Your task to perform on an android device: change the clock style Image 0: 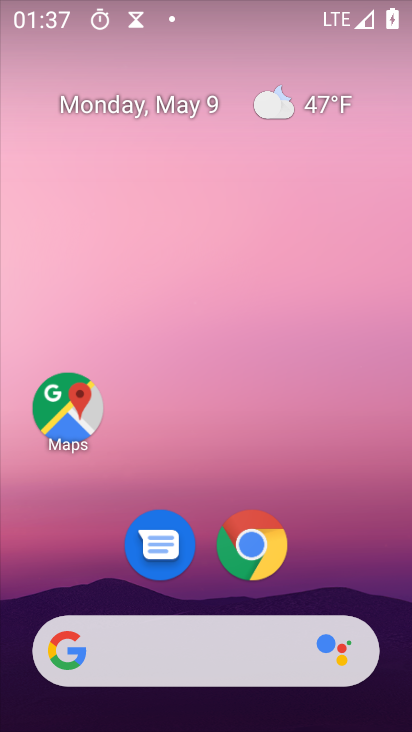
Step 0: drag from (273, 602) to (273, 4)
Your task to perform on an android device: change the clock style Image 1: 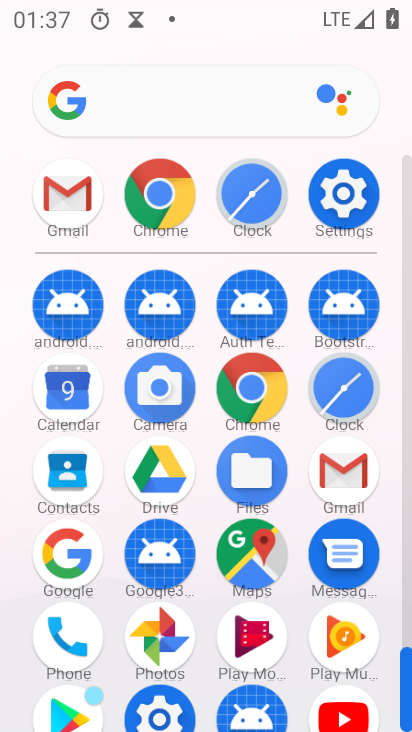
Step 1: click (363, 382)
Your task to perform on an android device: change the clock style Image 2: 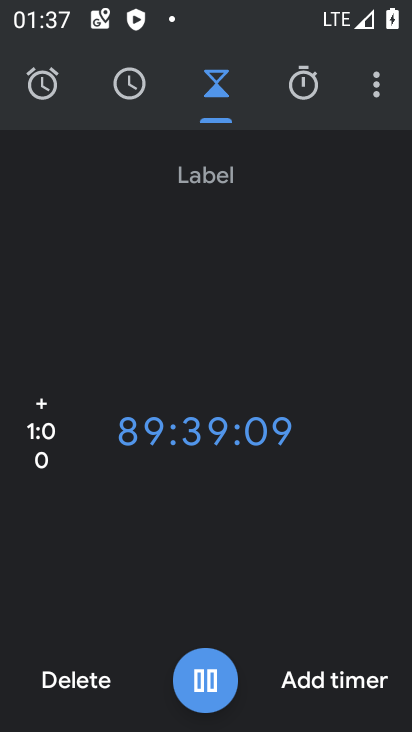
Step 2: click (374, 86)
Your task to perform on an android device: change the clock style Image 3: 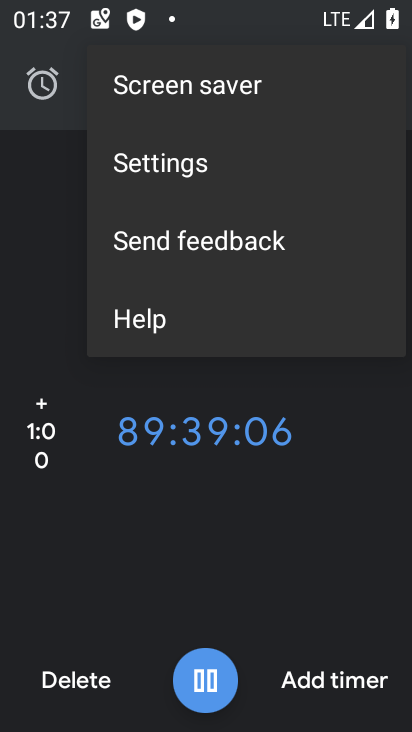
Step 3: click (216, 174)
Your task to perform on an android device: change the clock style Image 4: 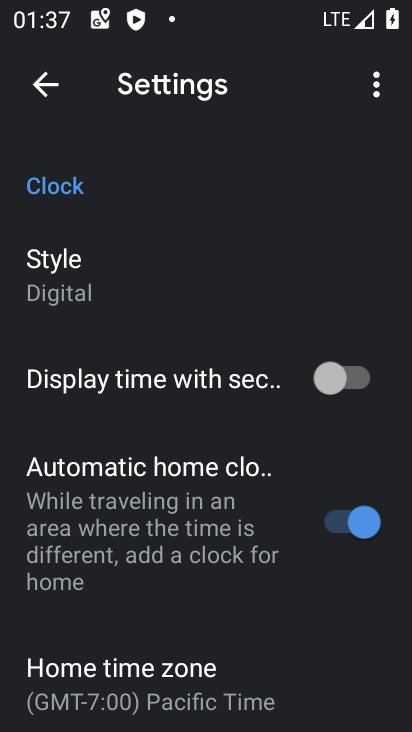
Step 4: drag from (208, 603) to (176, 540)
Your task to perform on an android device: change the clock style Image 5: 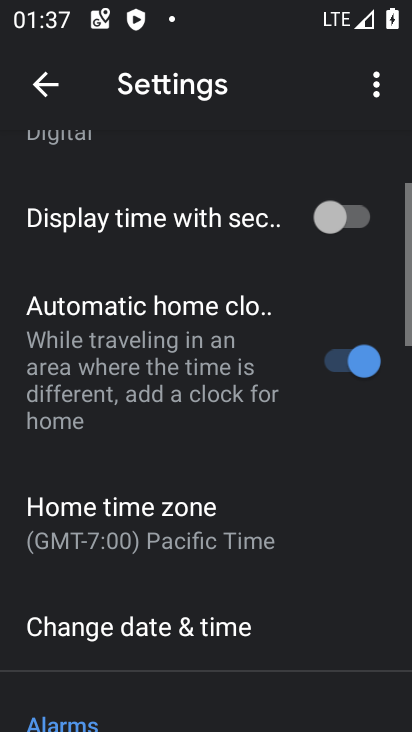
Step 5: click (125, 283)
Your task to perform on an android device: change the clock style Image 6: 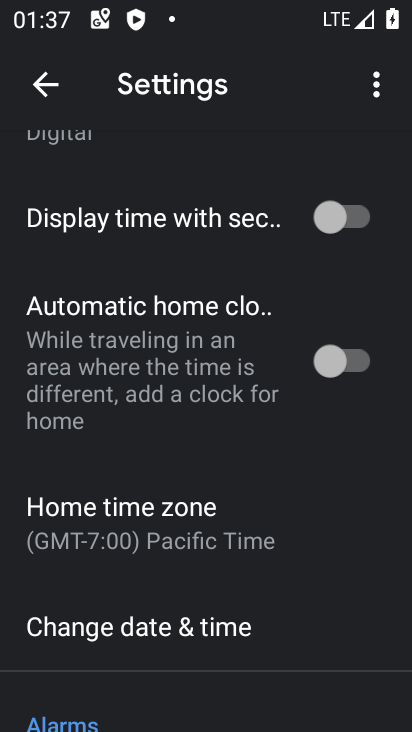
Step 6: click (349, 361)
Your task to perform on an android device: change the clock style Image 7: 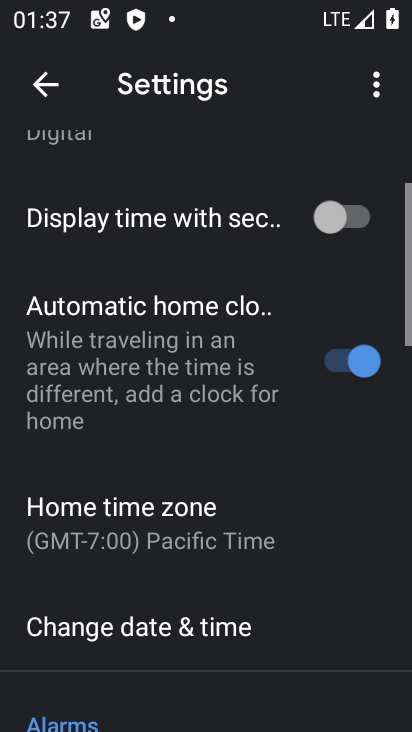
Step 7: drag from (229, 187) to (178, 730)
Your task to perform on an android device: change the clock style Image 8: 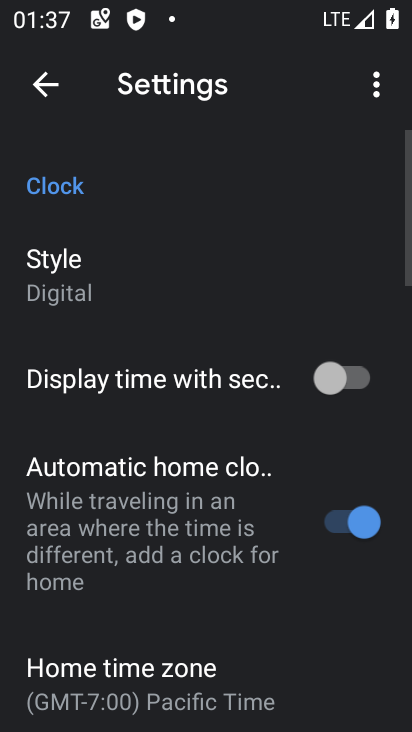
Step 8: click (92, 273)
Your task to perform on an android device: change the clock style Image 9: 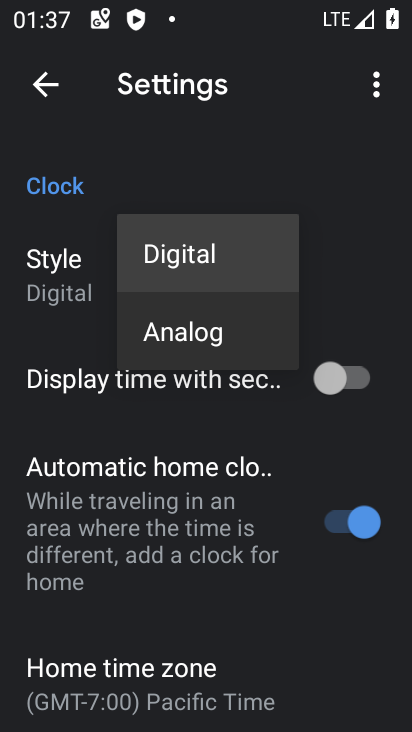
Step 9: click (175, 311)
Your task to perform on an android device: change the clock style Image 10: 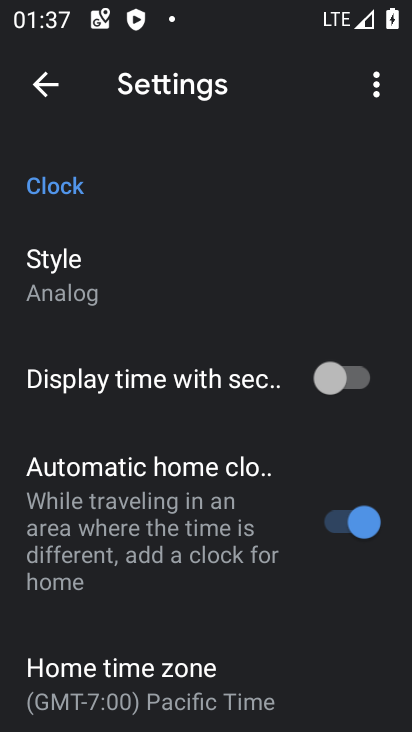
Step 10: task complete